Your task to perform on an android device: Open internet settings Image 0: 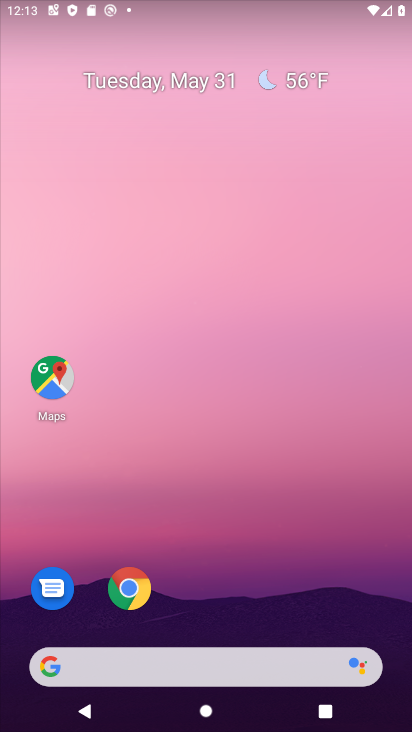
Step 0: drag from (236, 592) to (256, 129)
Your task to perform on an android device: Open internet settings Image 1: 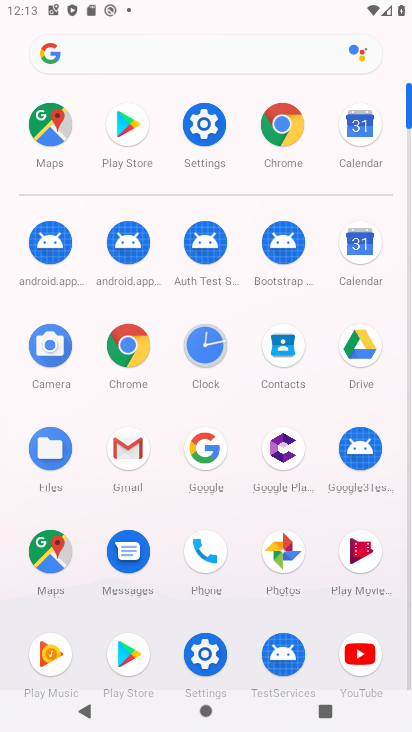
Step 1: click (200, 133)
Your task to perform on an android device: Open internet settings Image 2: 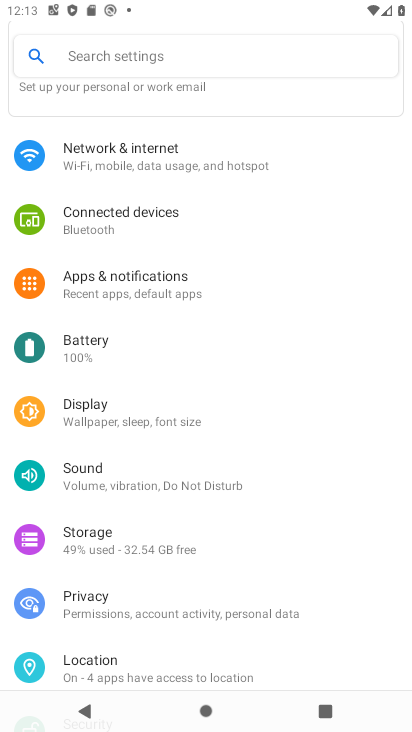
Step 2: click (146, 169)
Your task to perform on an android device: Open internet settings Image 3: 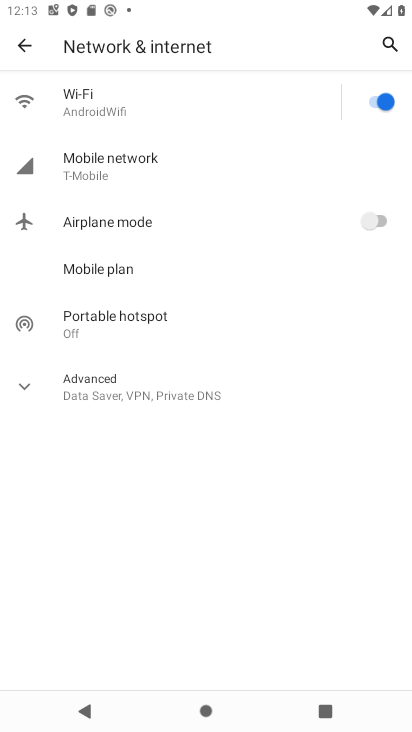
Step 3: task complete